Your task to perform on an android device: open a new tab in the chrome app Image 0: 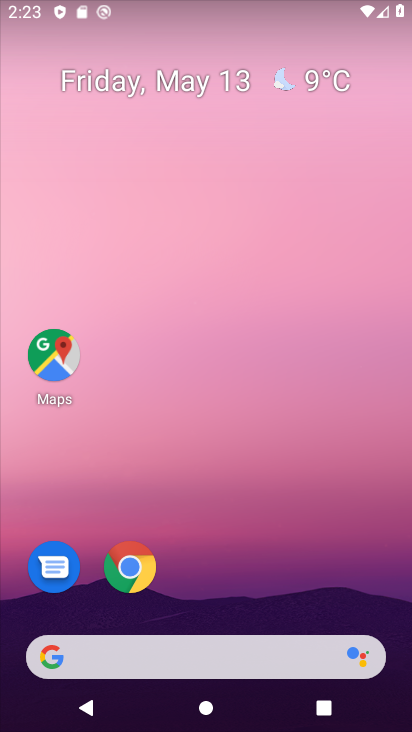
Step 0: click (141, 572)
Your task to perform on an android device: open a new tab in the chrome app Image 1: 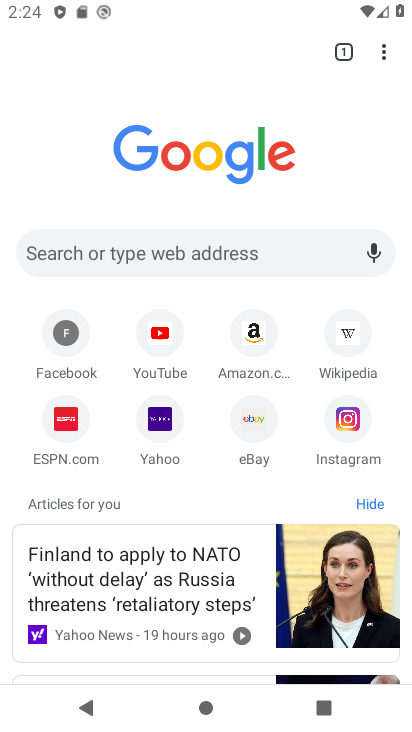
Step 1: click (388, 52)
Your task to perform on an android device: open a new tab in the chrome app Image 2: 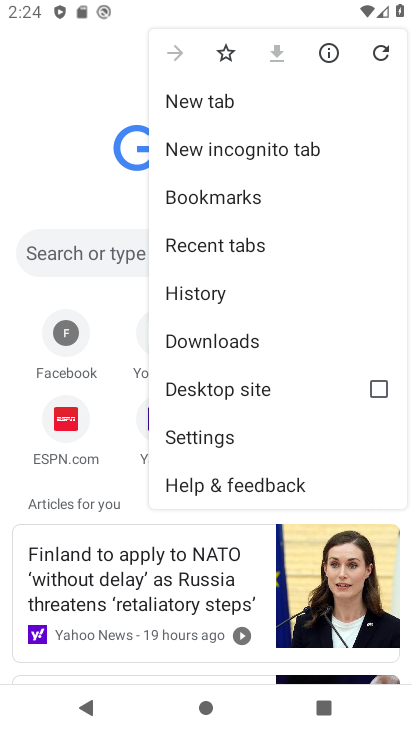
Step 2: click (189, 105)
Your task to perform on an android device: open a new tab in the chrome app Image 3: 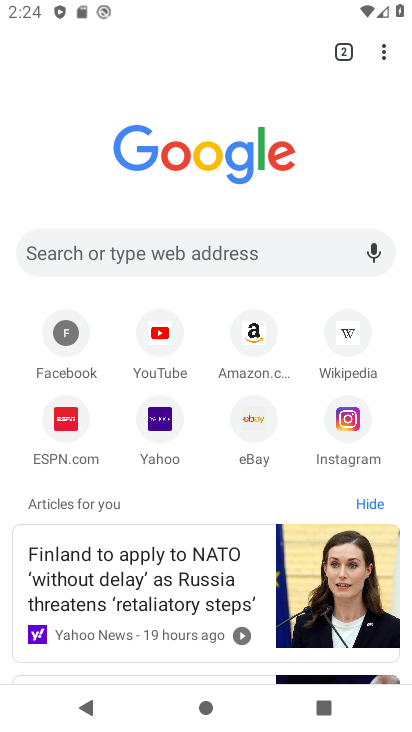
Step 3: task complete